Your task to perform on an android device: Search for Italian restaurants on Maps Image 0: 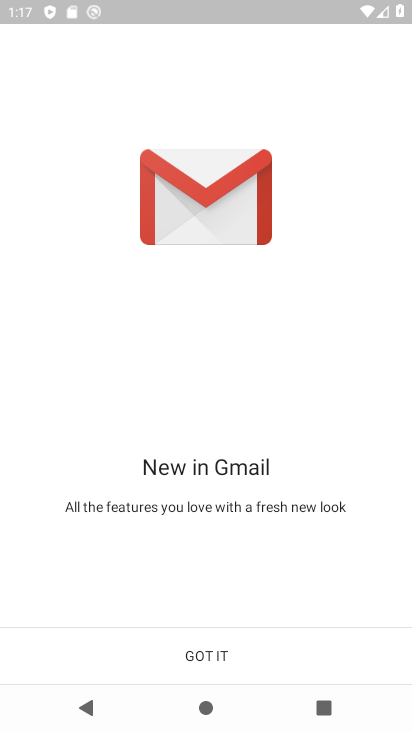
Step 0: press home button
Your task to perform on an android device: Search for Italian restaurants on Maps Image 1: 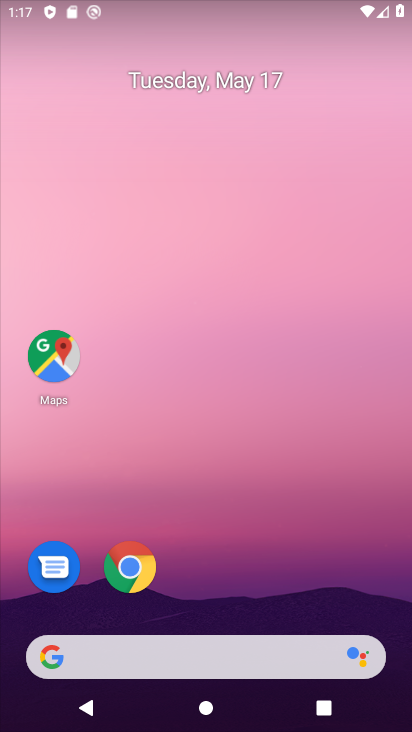
Step 1: click (50, 354)
Your task to perform on an android device: Search for Italian restaurants on Maps Image 2: 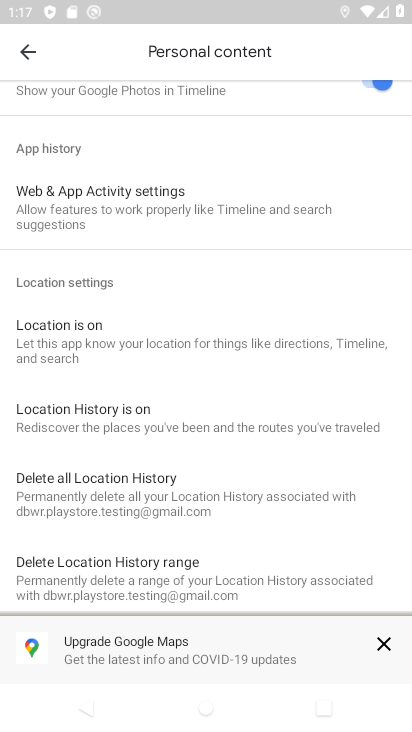
Step 2: press back button
Your task to perform on an android device: Search for Italian restaurants on Maps Image 3: 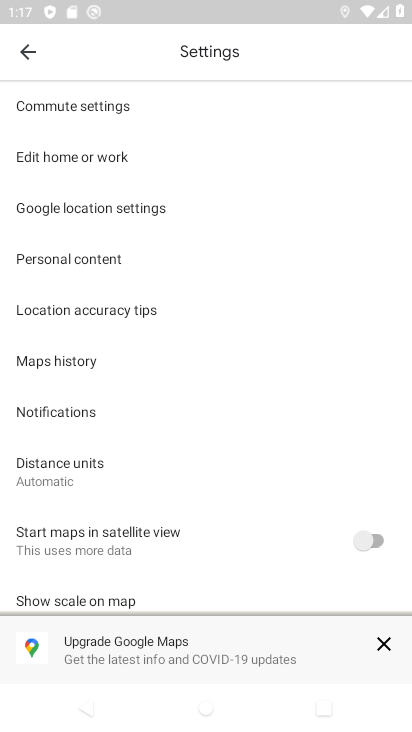
Step 3: press back button
Your task to perform on an android device: Search for Italian restaurants on Maps Image 4: 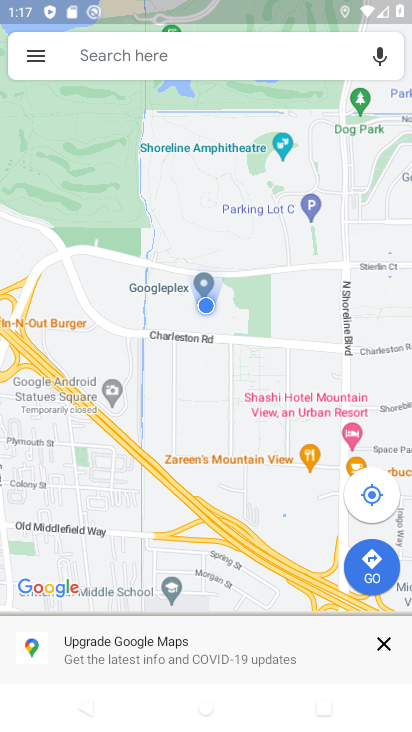
Step 4: click (119, 50)
Your task to perform on an android device: Search for Italian restaurants on Maps Image 5: 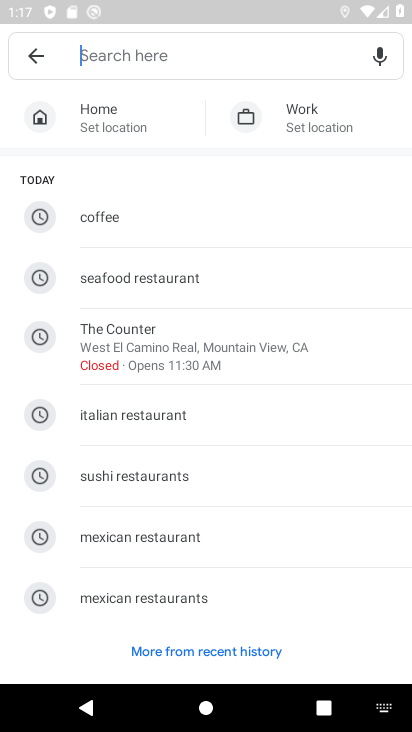
Step 5: type "italian restaurants"
Your task to perform on an android device: Search for Italian restaurants on Maps Image 6: 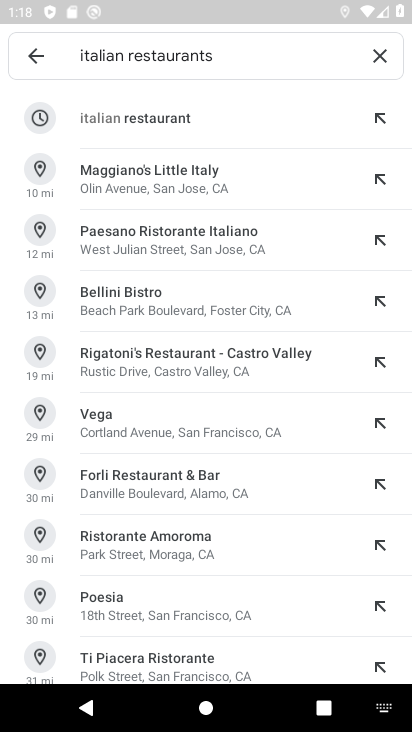
Step 6: click (182, 121)
Your task to perform on an android device: Search for Italian restaurants on Maps Image 7: 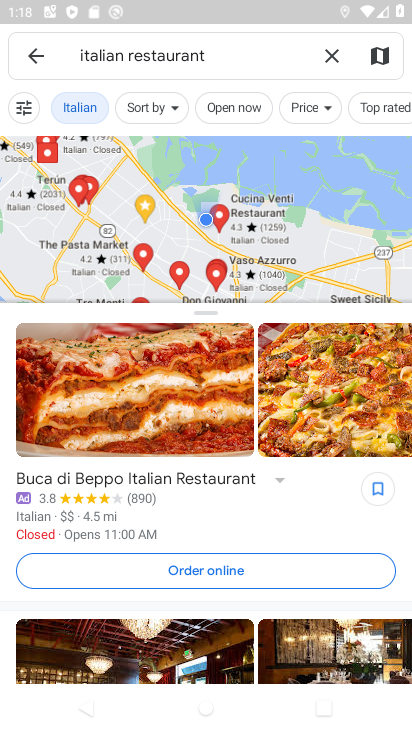
Step 7: task complete